Your task to perform on an android device: add a contact Image 0: 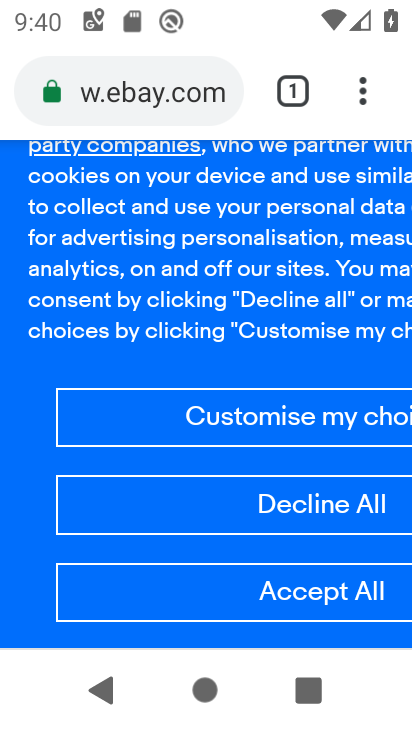
Step 0: press home button
Your task to perform on an android device: add a contact Image 1: 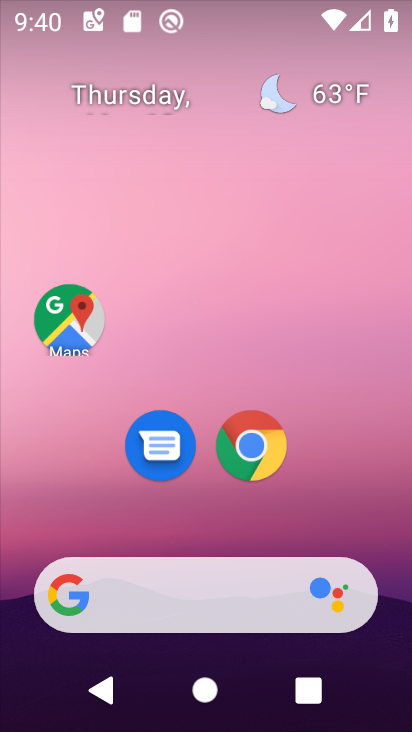
Step 1: drag from (132, 526) to (179, 143)
Your task to perform on an android device: add a contact Image 2: 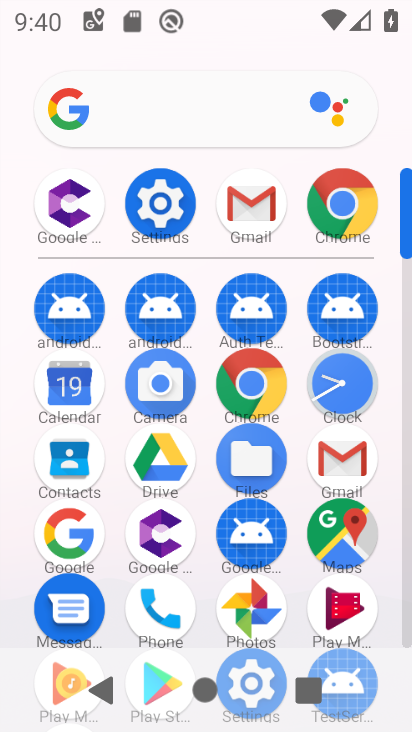
Step 2: click (74, 465)
Your task to perform on an android device: add a contact Image 3: 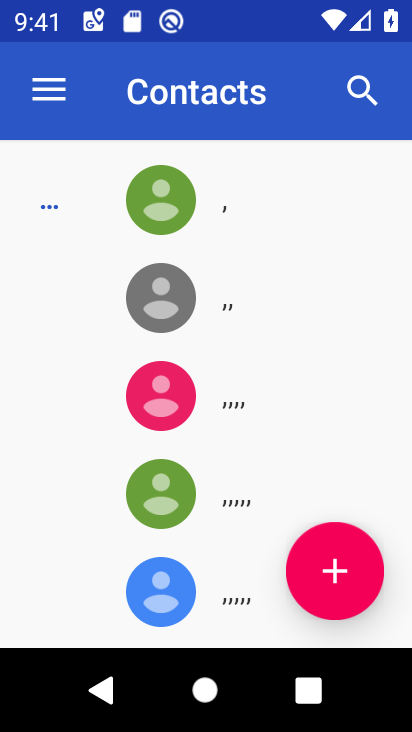
Step 3: click (340, 600)
Your task to perform on an android device: add a contact Image 4: 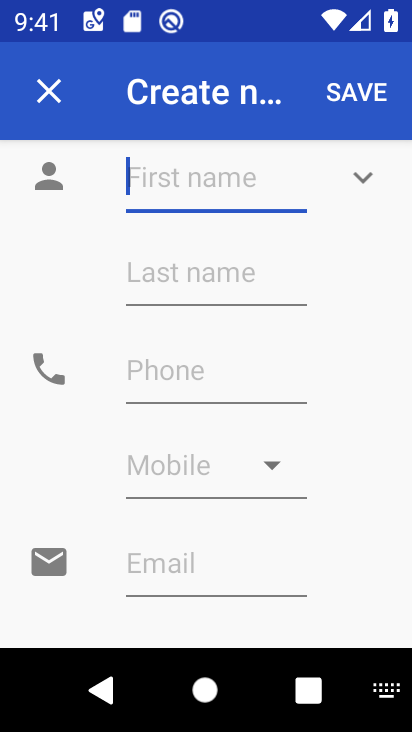
Step 4: click (148, 374)
Your task to perform on an android device: add a contact Image 5: 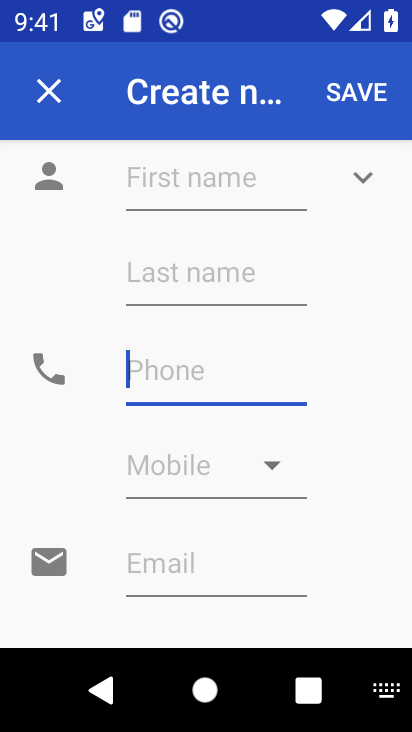
Step 5: type "7658754654"
Your task to perform on an android device: add a contact Image 6: 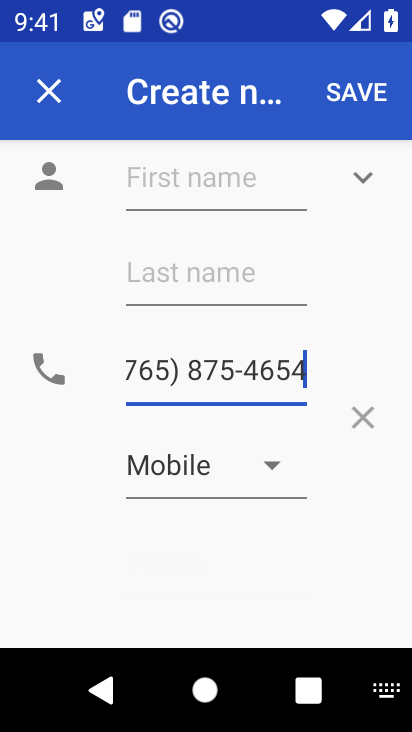
Step 6: type ""
Your task to perform on an android device: add a contact Image 7: 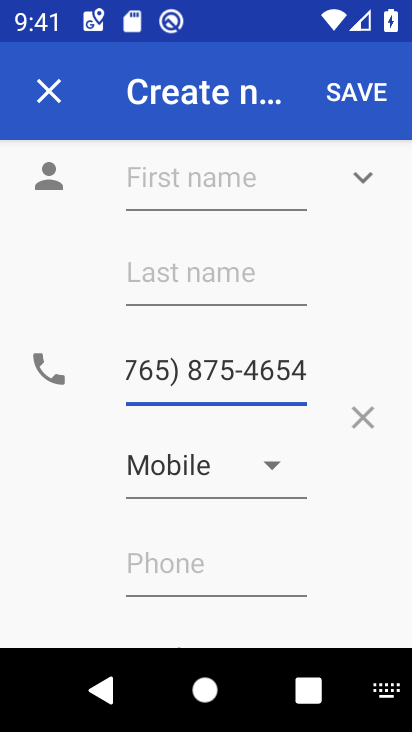
Step 7: click (232, 190)
Your task to perform on an android device: add a contact Image 8: 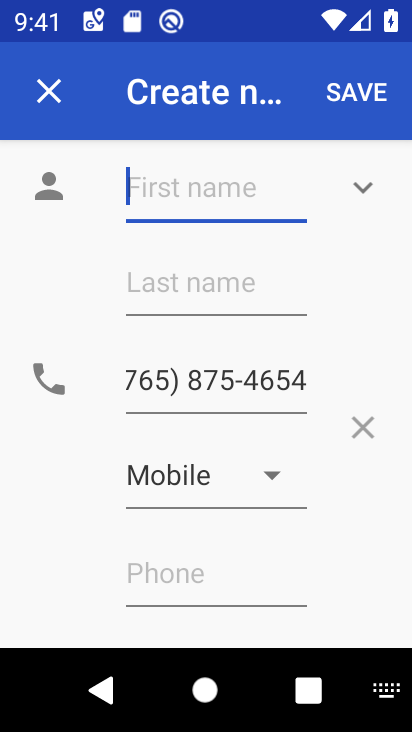
Step 8: type "hgfdfdgxfghfds"
Your task to perform on an android device: add a contact Image 9: 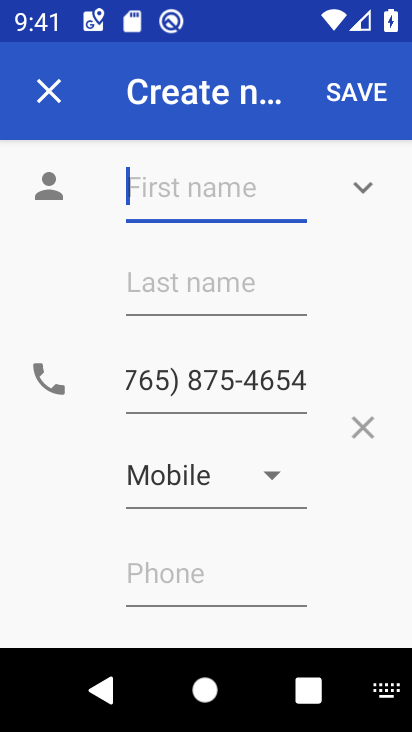
Step 9: click (348, 99)
Your task to perform on an android device: add a contact Image 10: 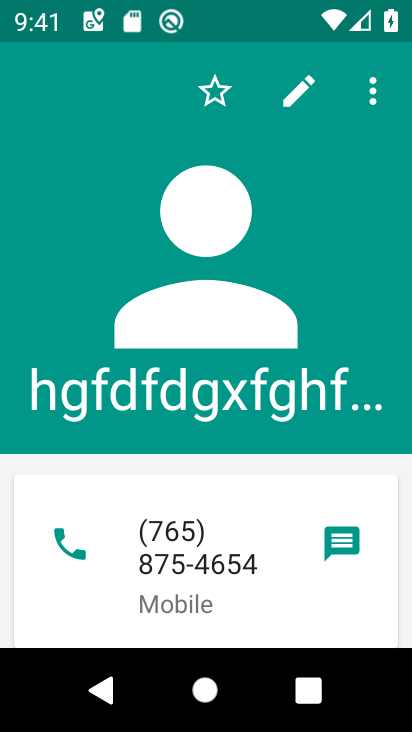
Step 10: task complete